Your task to perform on an android device: Search for Italian restaurants on Maps Image 0: 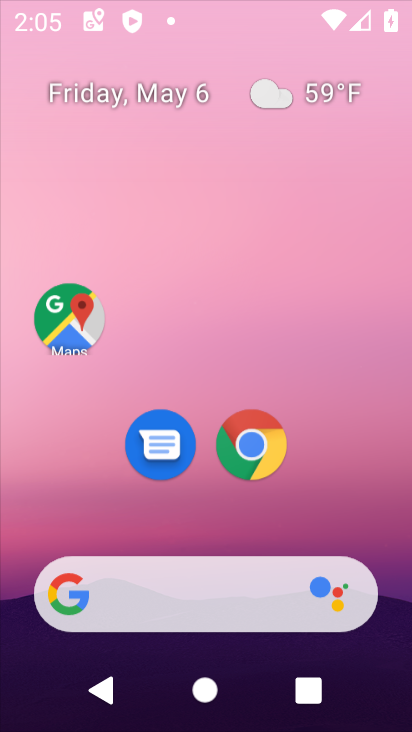
Step 0: click (217, 208)
Your task to perform on an android device: Search for Italian restaurants on Maps Image 1: 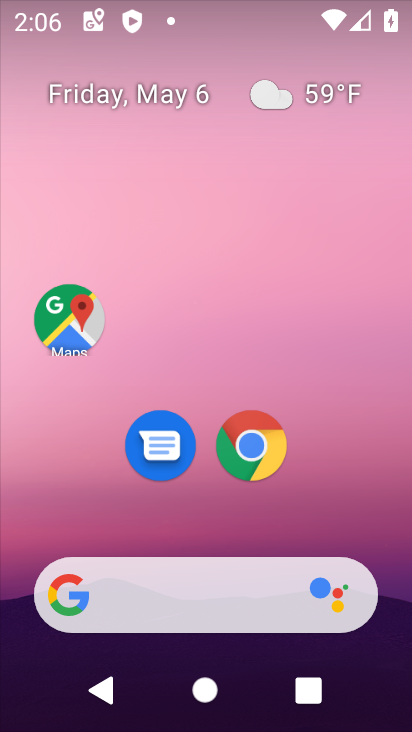
Step 1: drag from (329, 629) to (249, 220)
Your task to perform on an android device: Search for Italian restaurants on Maps Image 2: 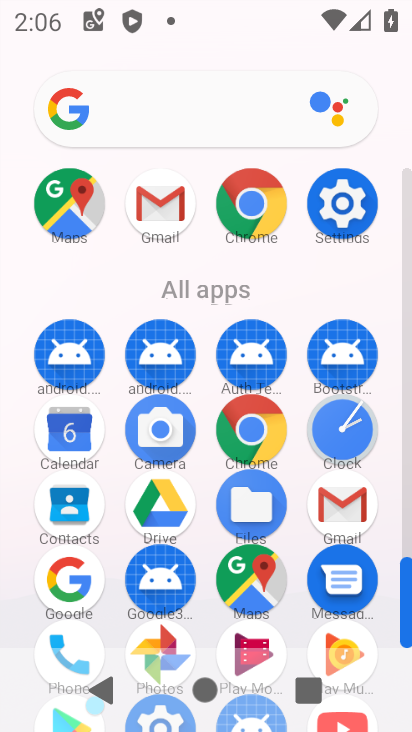
Step 2: click (258, 579)
Your task to perform on an android device: Search for Italian restaurants on Maps Image 3: 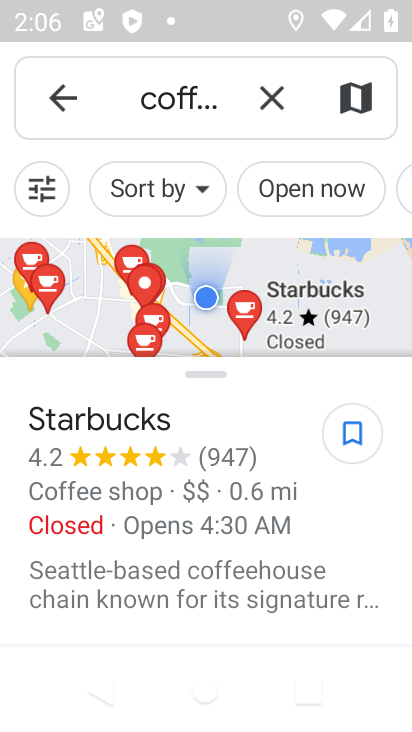
Step 3: click (278, 86)
Your task to perform on an android device: Search for Italian restaurants on Maps Image 4: 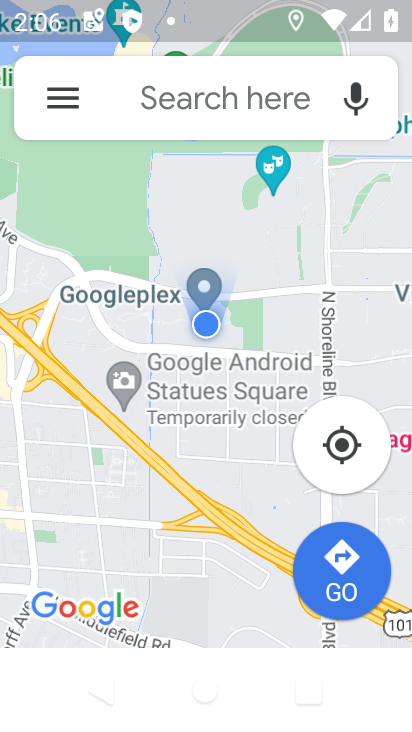
Step 4: click (139, 114)
Your task to perform on an android device: Search for Italian restaurants on Maps Image 5: 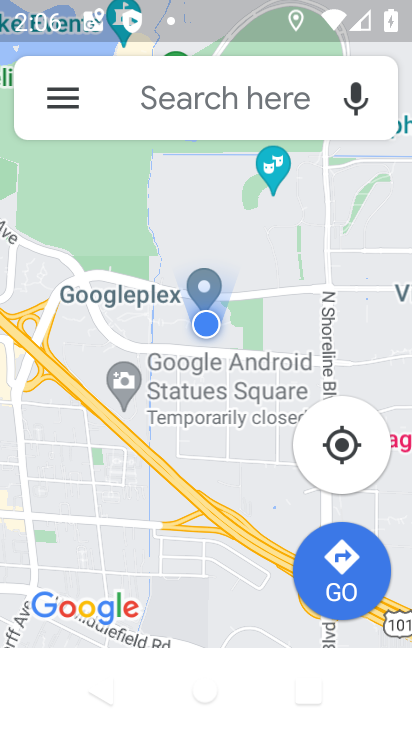
Step 5: click (158, 82)
Your task to perform on an android device: Search for Italian restaurants on Maps Image 6: 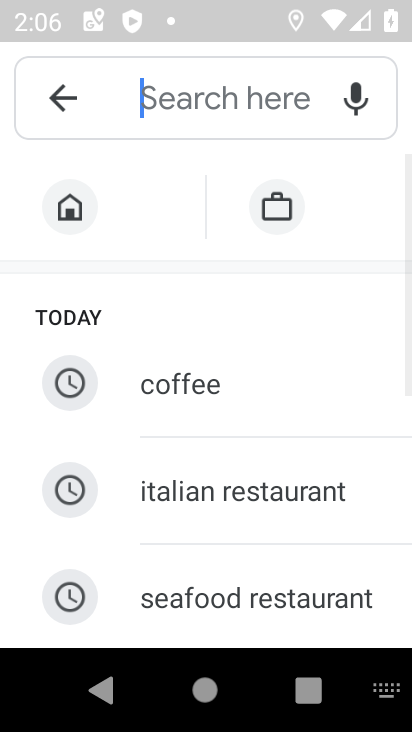
Step 6: click (141, 93)
Your task to perform on an android device: Search for Italian restaurants on Maps Image 7: 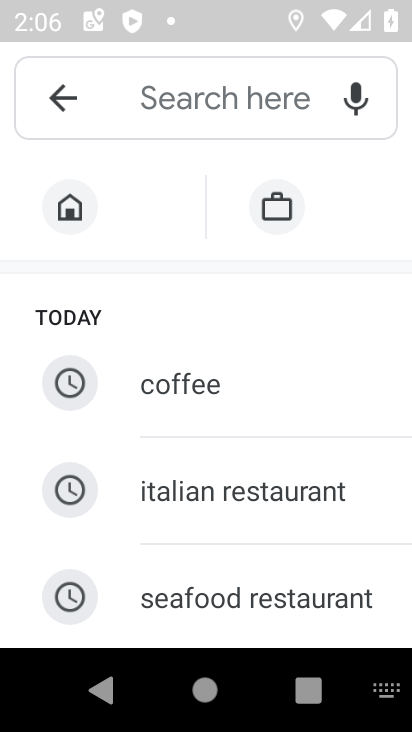
Step 7: click (213, 480)
Your task to perform on an android device: Search for Italian restaurants on Maps Image 8: 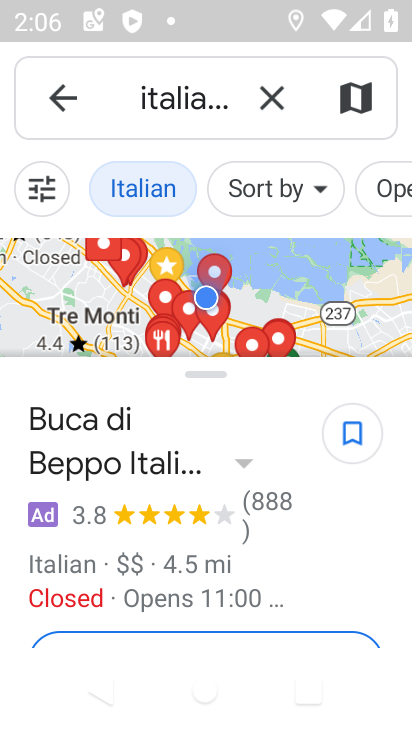
Step 8: task complete